Your task to perform on an android device: Open Youtube and go to the subscriptions tab Image 0: 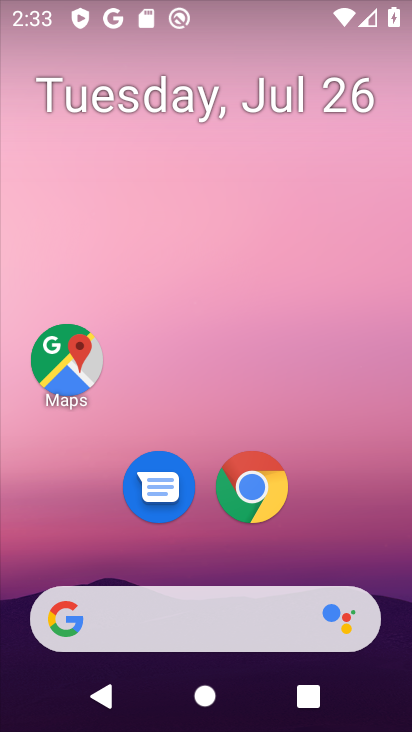
Step 0: drag from (233, 570) to (316, 4)
Your task to perform on an android device: Open Youtube and go to the subscriptions tab Image 1: 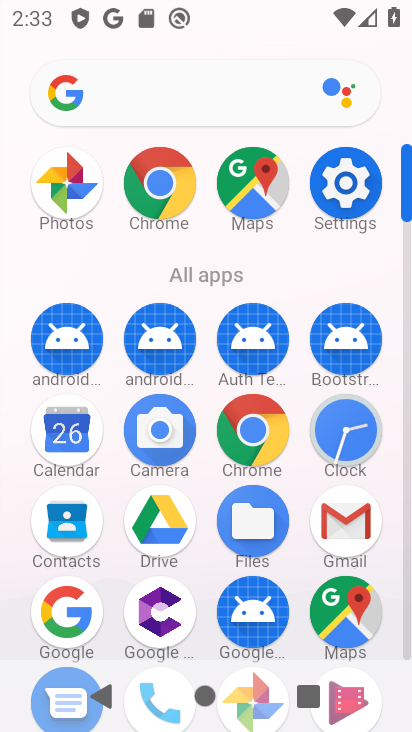
Step 1: drag from (172, 619) to (273, 130)
Your task to perform on an android device: Open Youtube and go to the subscriptions tab Image 2: 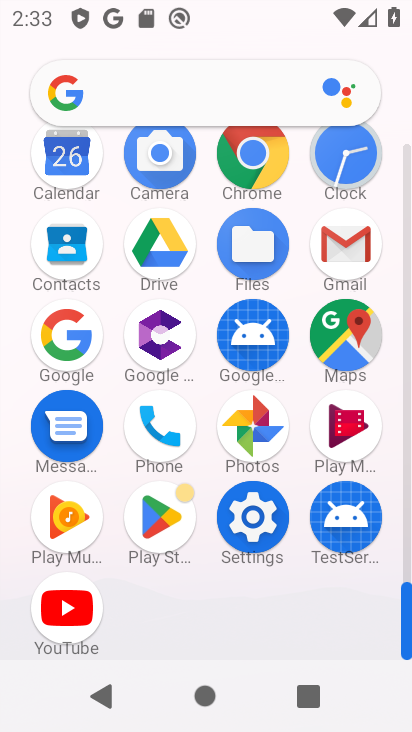
Step 2: click (70, 600)
Your task to perform on an android device: Open Youtube and go to the subscriptions tab Image 3: 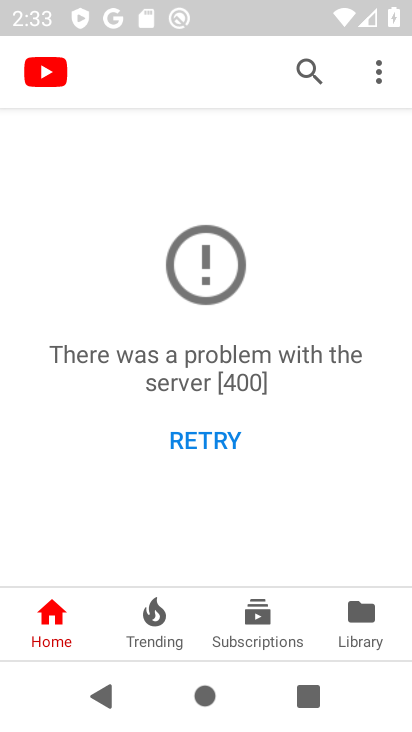
Step 3: click (271, 605)
Your task to perform on an android device: Open Youtube and go to the subscriptions tab Image 4: 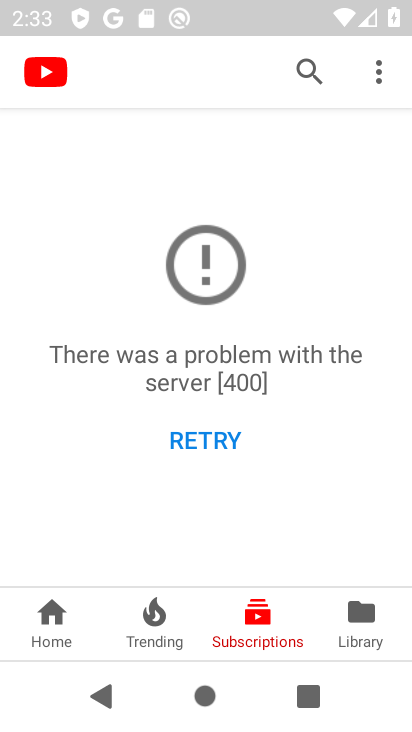
Step 4: task complete